Your task to perform on an android device: Check the weather Image 0: 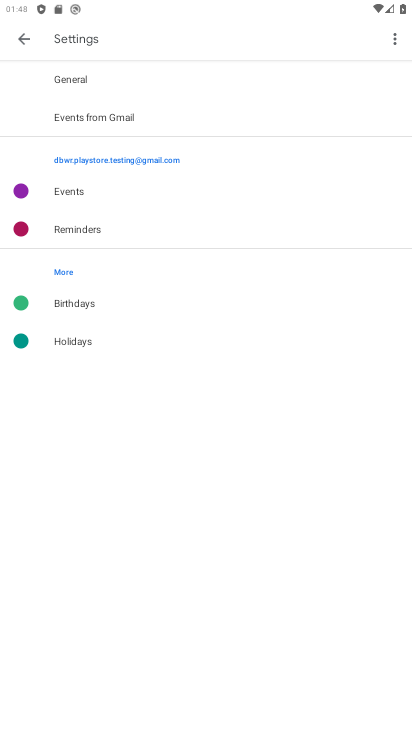
Step 0: press home button
Your task to perform on an android device: Check the weather Image 1: 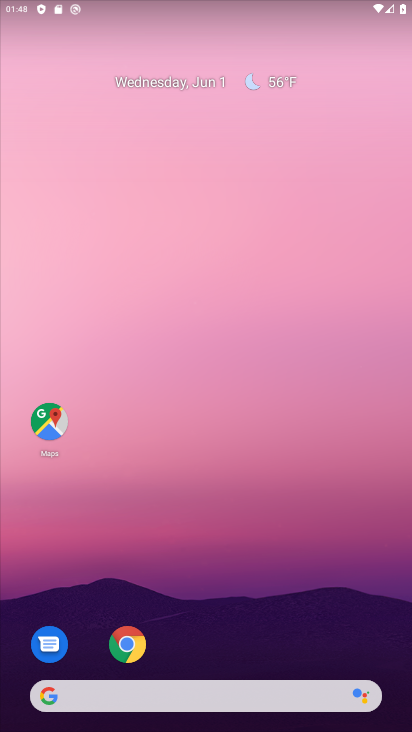
Step 1: drag from (188, 676) to (182, 239)
Your task to perform on an android device: Check the weather Image 2: 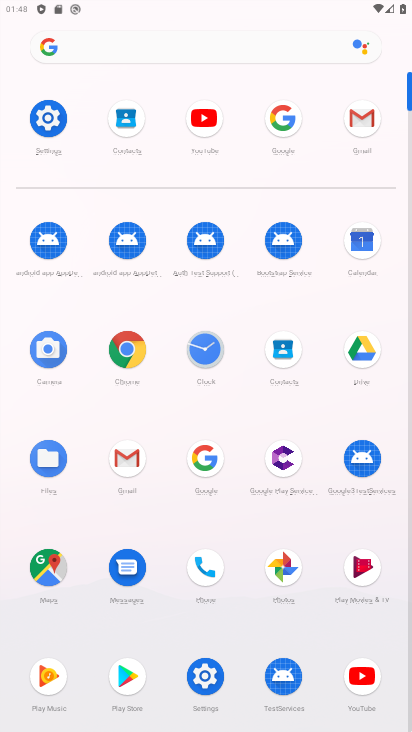
Step 2: click (210, 466)
Your task to perform on an android device: Check the weather Image 3: 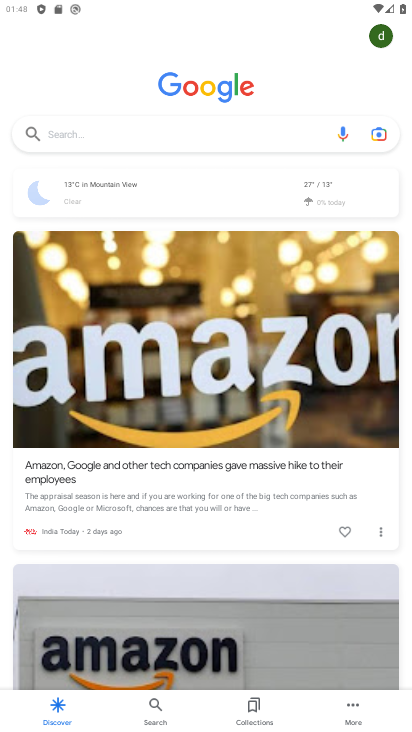
Step 3: click (136, 184)
Your task to perform on an android device: Check the weather Image 4: 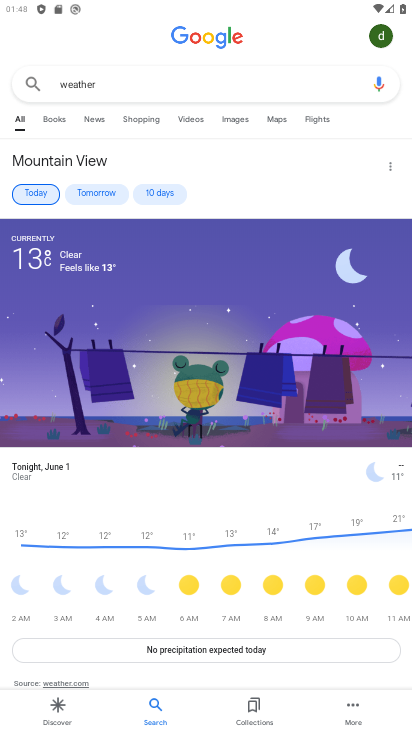
Step 4: task complete